Your task to perform on an android device: Open the Play Movies app and select the watchlist tab. Image 0: 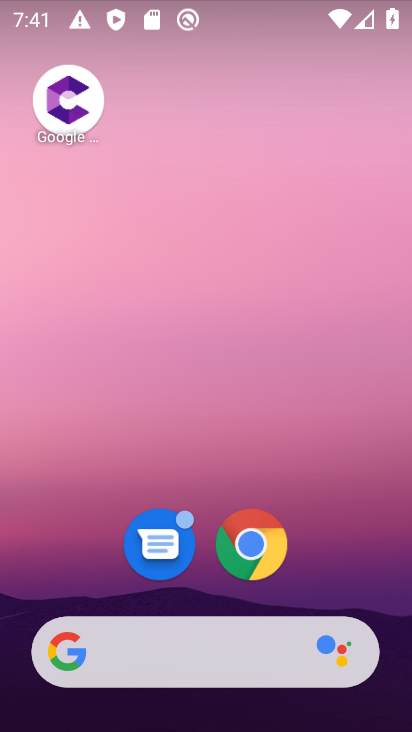
Step 0: drag from (230, 594) to (257, 158)
Your task to perform on an android device: Open the Play Movies app and select the watchlist tab. Image 1: 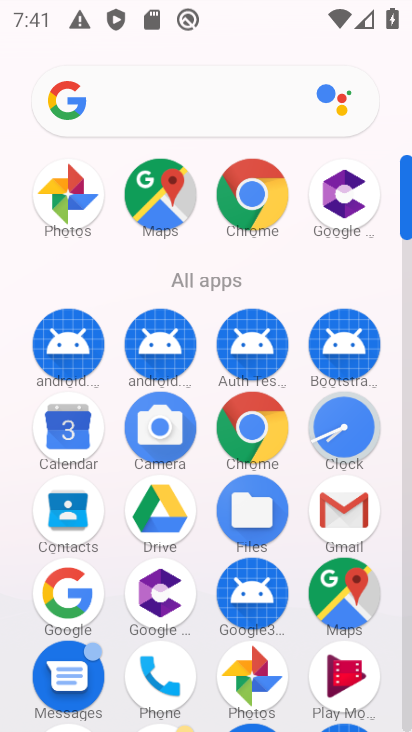
Step 1: drag from (205, 689) to (206, 256)
Your task to perform on an android device: Open the Play Movies app and select the watchlist tab. Image 2: 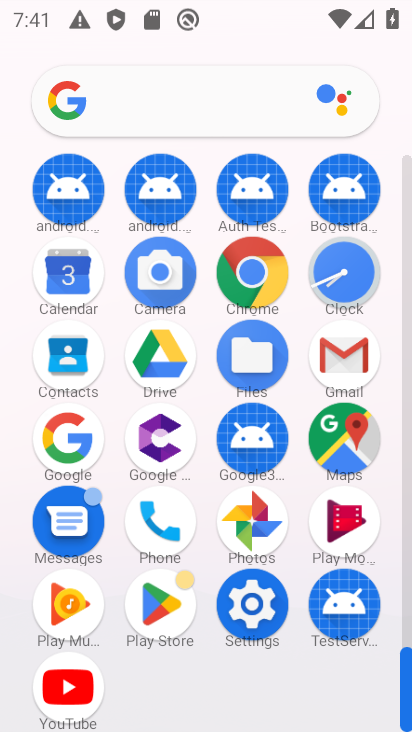
Step 2: click (343, 518)
Your task to perform on an android device: Open the Play Movies app and select the watchlist tab. Image 3: 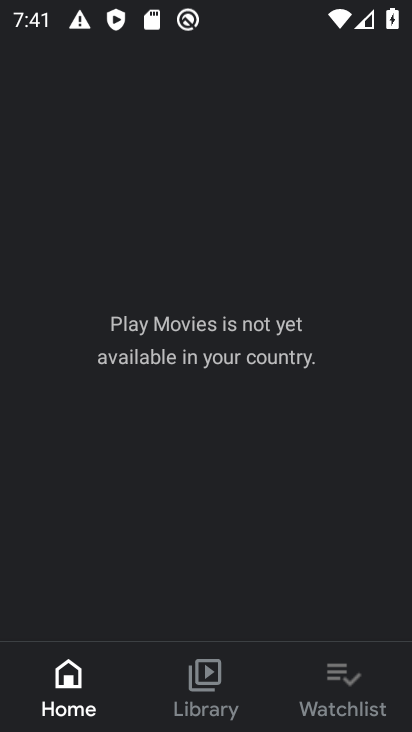
Step 3: click (319, 676)
Your task to perform on an android device: Open the Play Movies app and select the watchlist tab. Image 4: 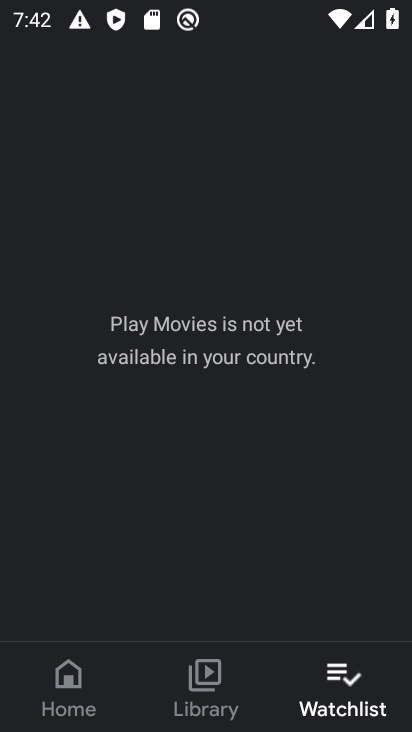
Step 4: task complete